Your task to perform on an android device: find snoozed emails in the gmail app Image 0: 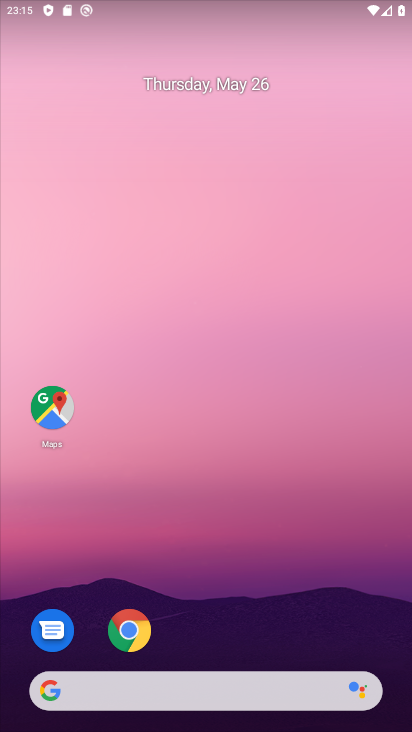
Step 0: drag from (257, 629) to (242, 111)
Your task to perform on an android device: find snoozed emails in the gmail app Image 1: 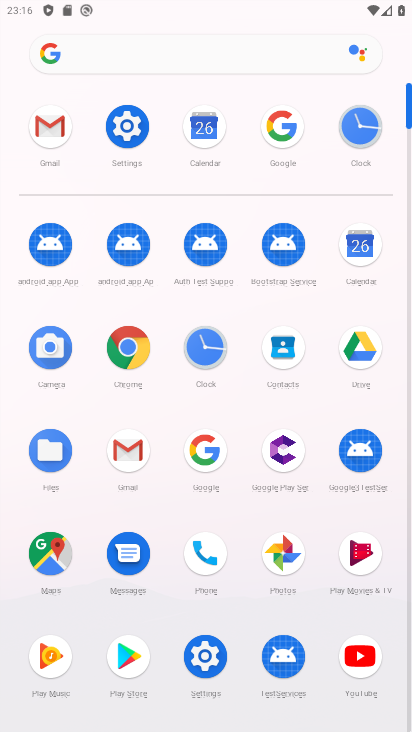
Step 1: click (48, 130)
Your task to perform on an android device: find snoozed emails in the gmail app Image 2: 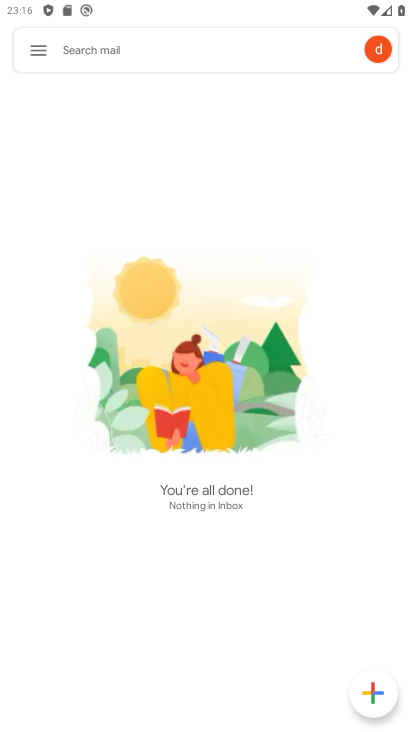
Step 2: click (38, 54)
Your task to perform on an android device: find snoozed emails in the gmail app Image 3: 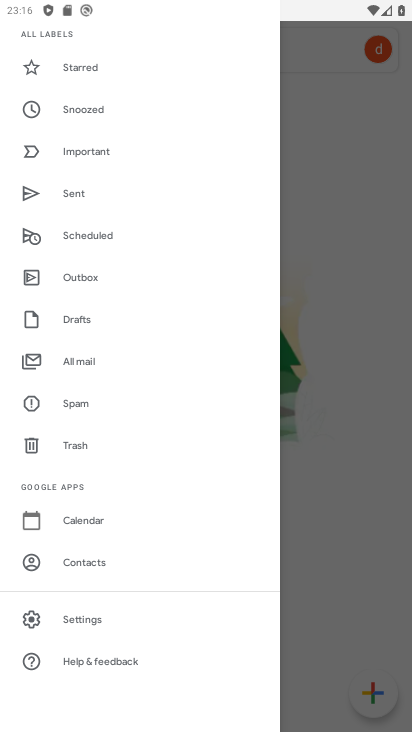
Step 3: click (79, 109)
Your task to perform on an android device: find snoozed emails in the gmail app Image 4: 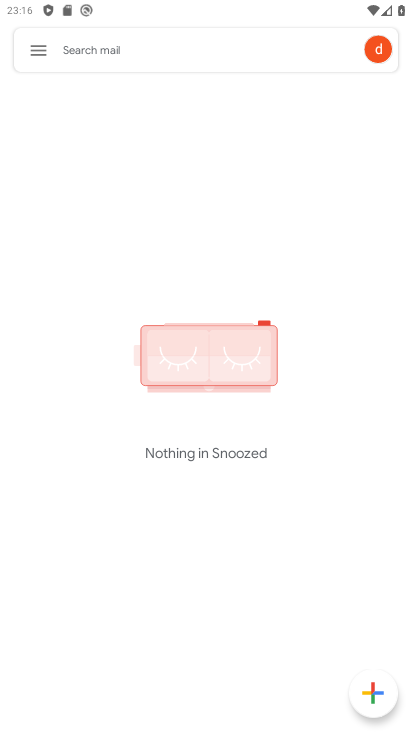
Step 4: click (42, 51)
Your task to perform on an android device: find snoozed emails in the gmail app Image 5: 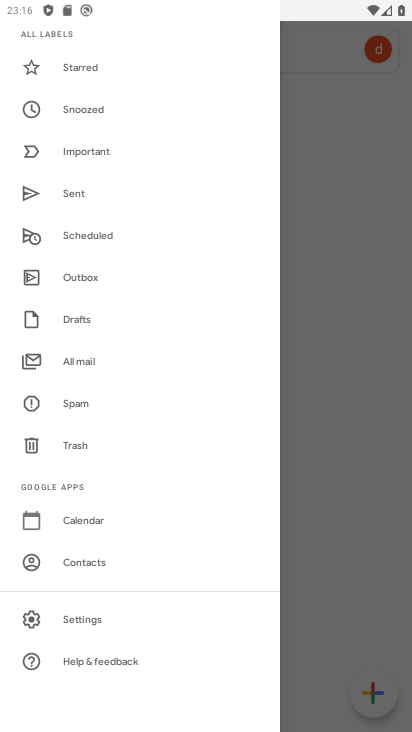
Step 5: drag from (78, 334) to (130, 272)
Your task to perform on an android device: find snoozed emails in the gmail app Image 6: 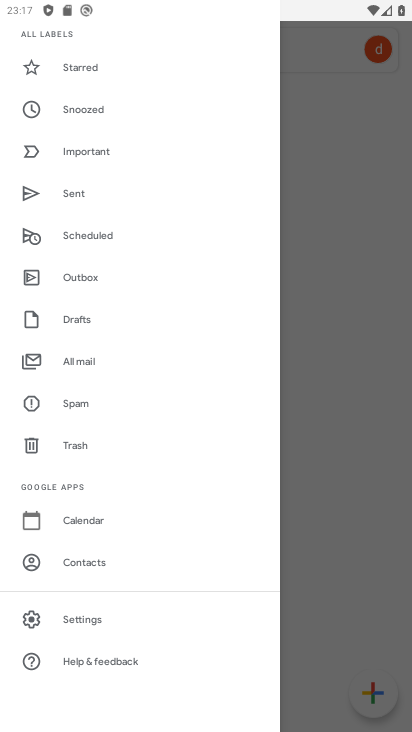
Step 6: click (92, 112)
Your task to perform on an android device: find snoozed emails in the gmail app Image 7: 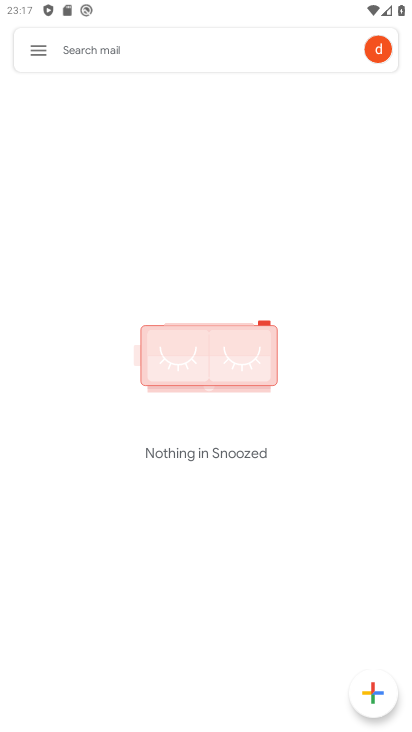
Step 7: task complete